Your task to perform on an android device: Go to sound settings Image 0: 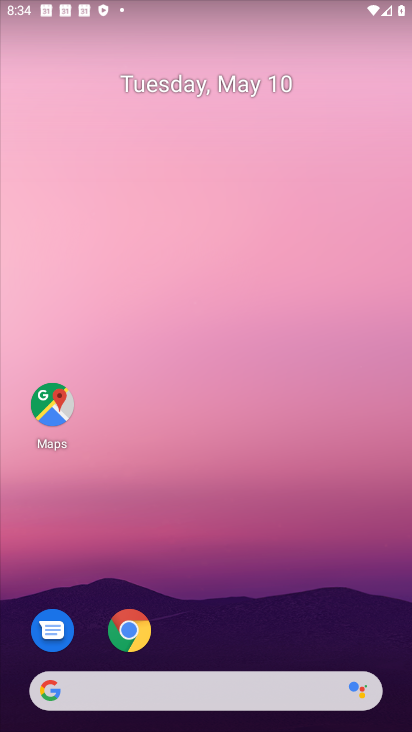
Step 0: drag from (258, 729) to (361, 116)
Your task to perform on an android device: Go to sound settings Image 1: 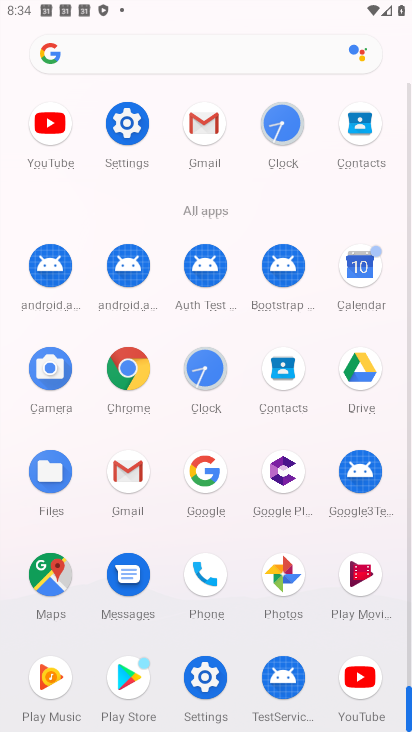
Step 1: click (198, 684)
Your task to perform on an android device: Go to sound settings Image 2: 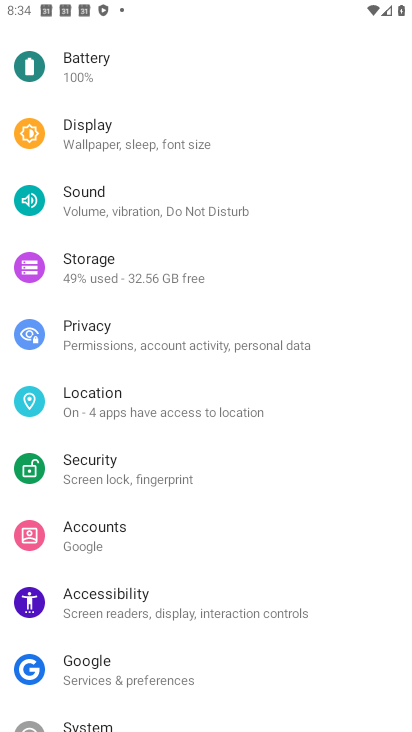
Step 2: click (175, 199)
Your task to perform on an android device: Go to sound settings Image 3: 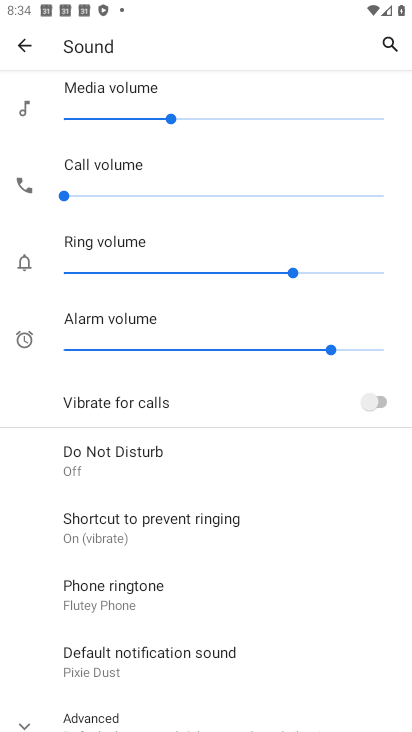
Step 3: task complete